Your task to perform on an android device: see creations saved in the google photos Image 0: 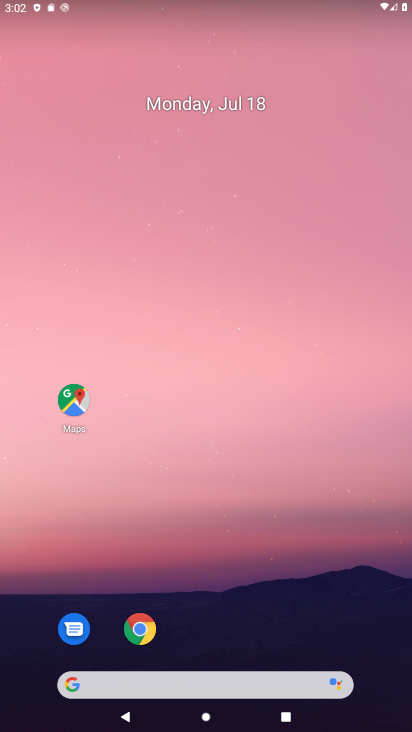
Step 0: drag from (211, 655) to (249, 192)
Your task to perform on an android device: see creations saved in the google photos Image 1: 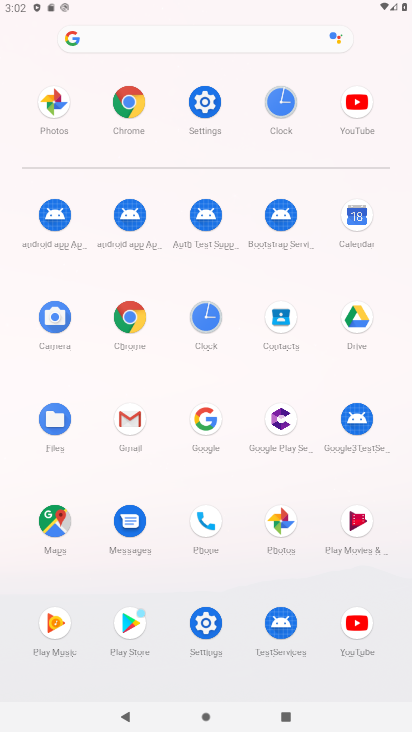
Step 1: click (279, 531)
Your task to perform on an android device: see creations saved in the google photos Image 2: 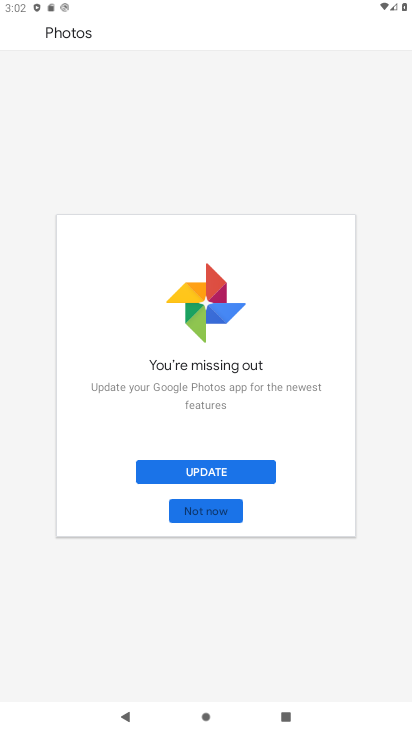
Step 2: click (220, 509)
Your task to perform on an android device: see creations saved in the google photos Image 3: 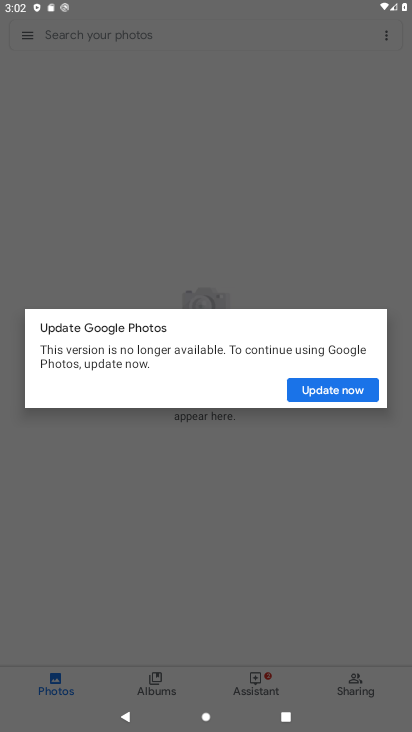
Step 3: click (332, 390)
Your task to perform on an android device: see creations saved in the google photos Image 4: 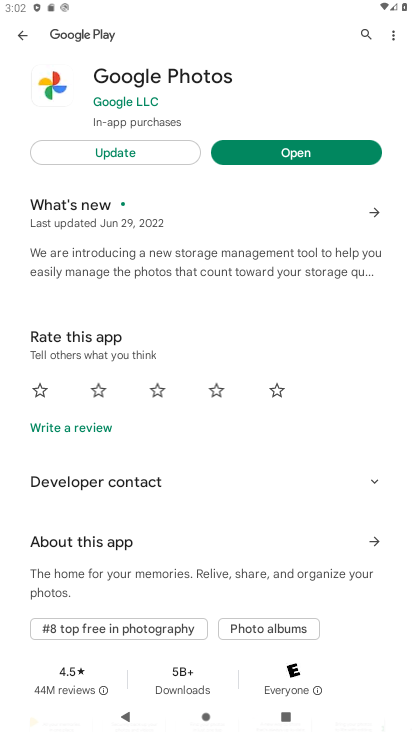
Step 4: click (263, 153)
Your task to perform on an android device: see creations saved in the google photos Image 5: 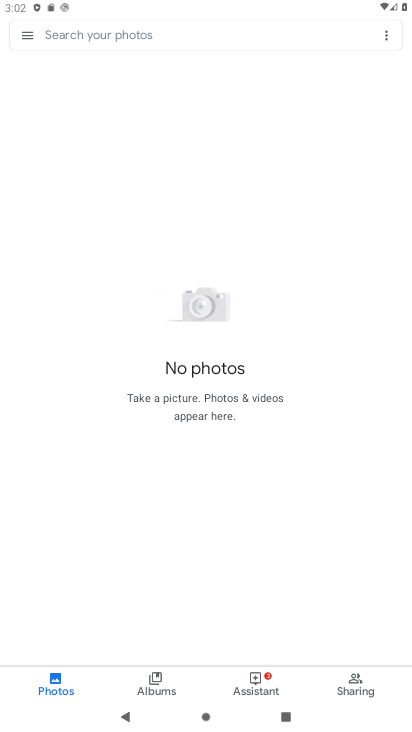
Step 5: click (175, 32)
Your task to perform on an android device: see creations saved in the google photos Image 6: 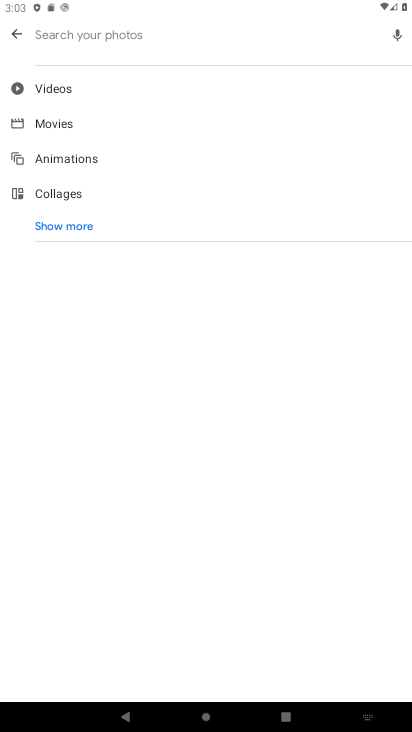
Step 6: type "creations"
Your task to perform on an android device: see creations saved in the google photos Image 7: 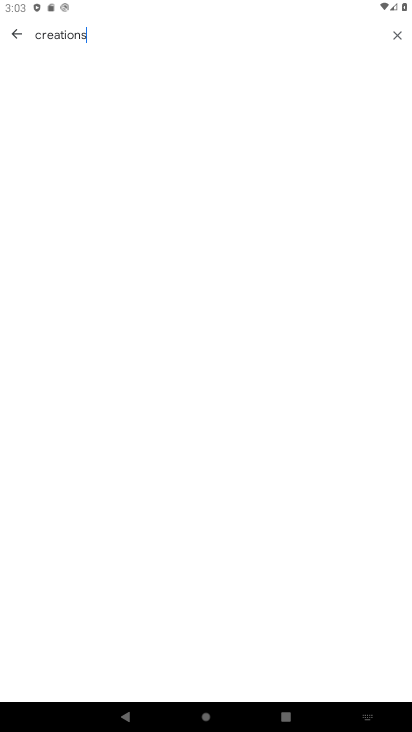
Step 7: click (158, 204)
Your task to perform on an android device: see creations saved in the google photos Image 8: 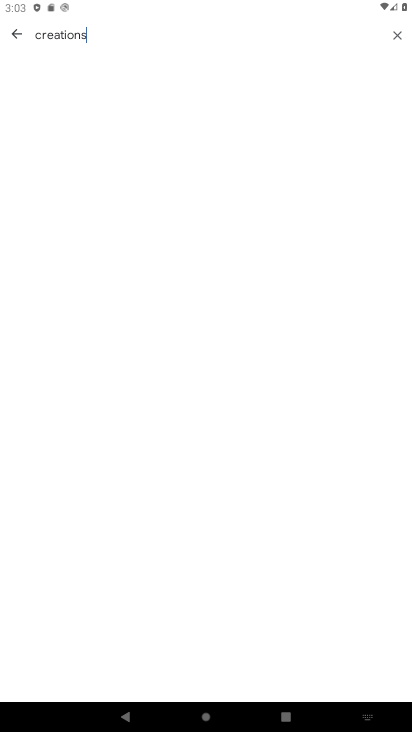
Step 8: task complete